Your task to perform on an android device: open app "VLC for Android" Image 0: 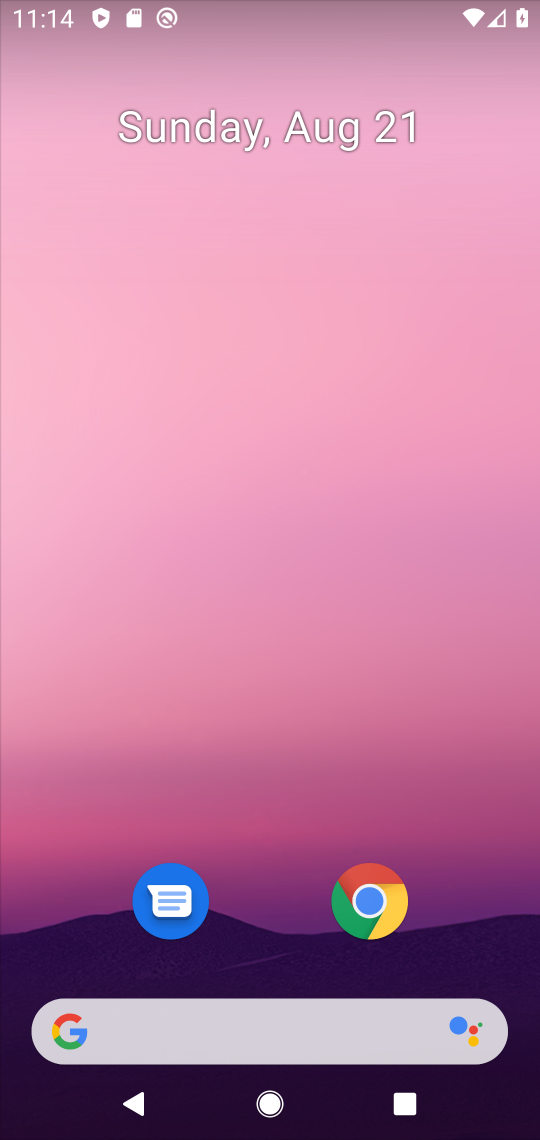
Step 0: drag from (257, 912) to (268, 182)
Your task to perform on an android device: open app "VLC for Android" Image 1: 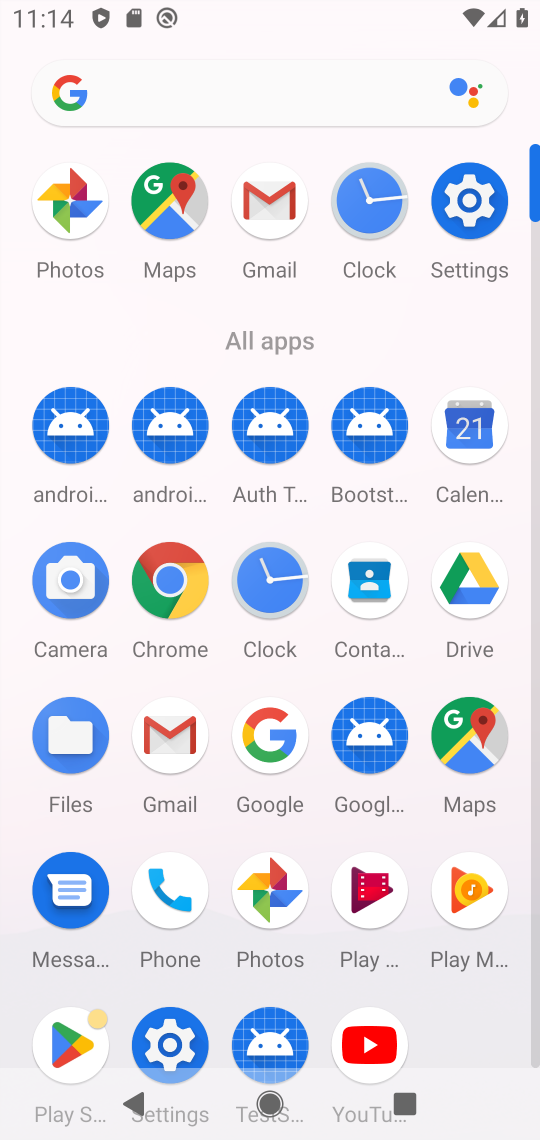
Step 1: click (73, 1032)
Your task to perform on an android device: open app "VLC for Android" Image 2: 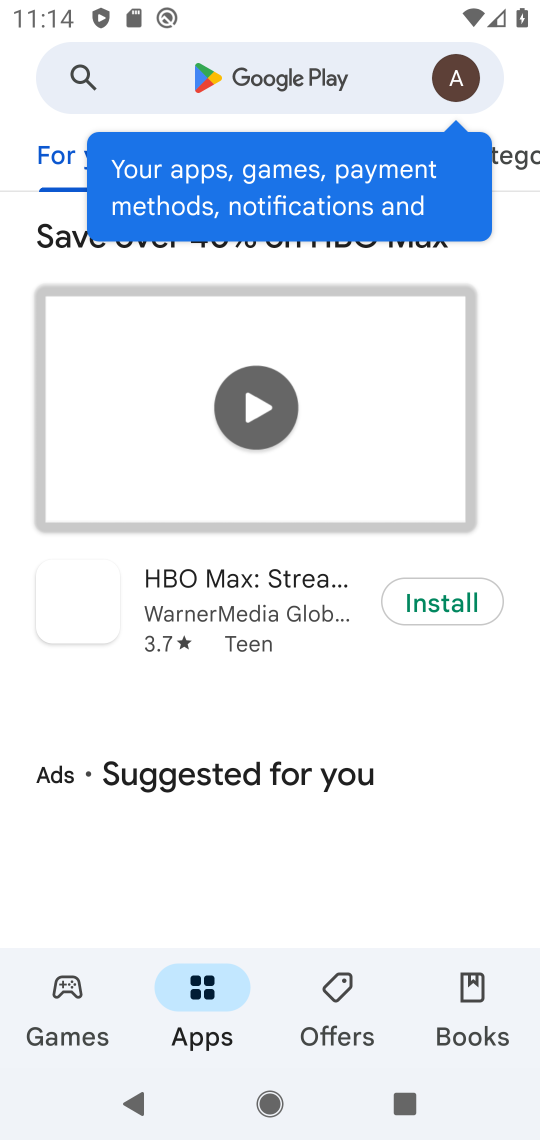
Step 2: click (312, 85)
Your task to perform on an android device: open app "VLC for Android" Image 3: 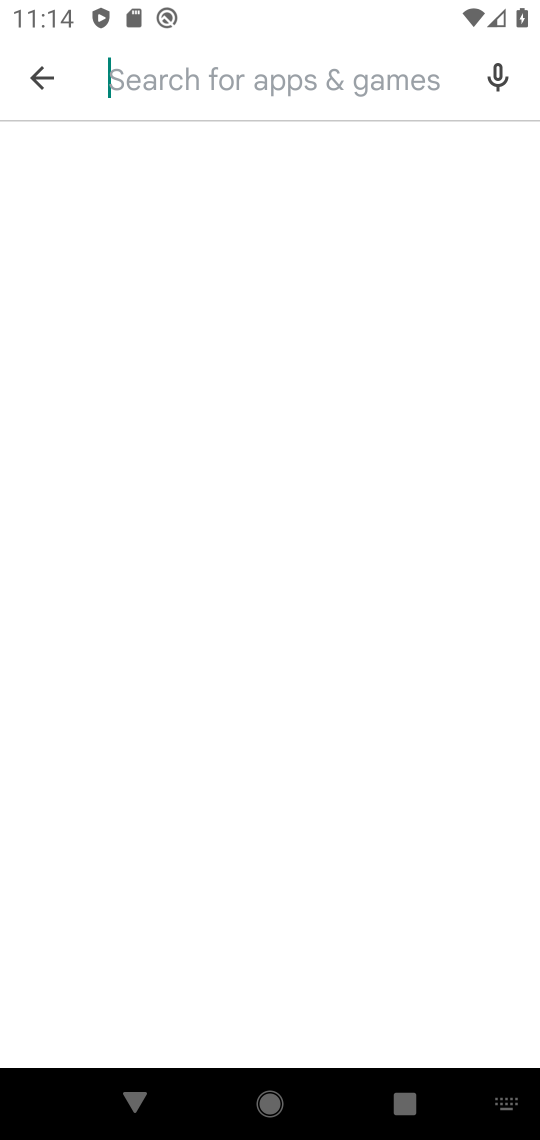
Step 3: type "vlc"
Your task to perform on an android device: open app "VLC for Android" Image 4: 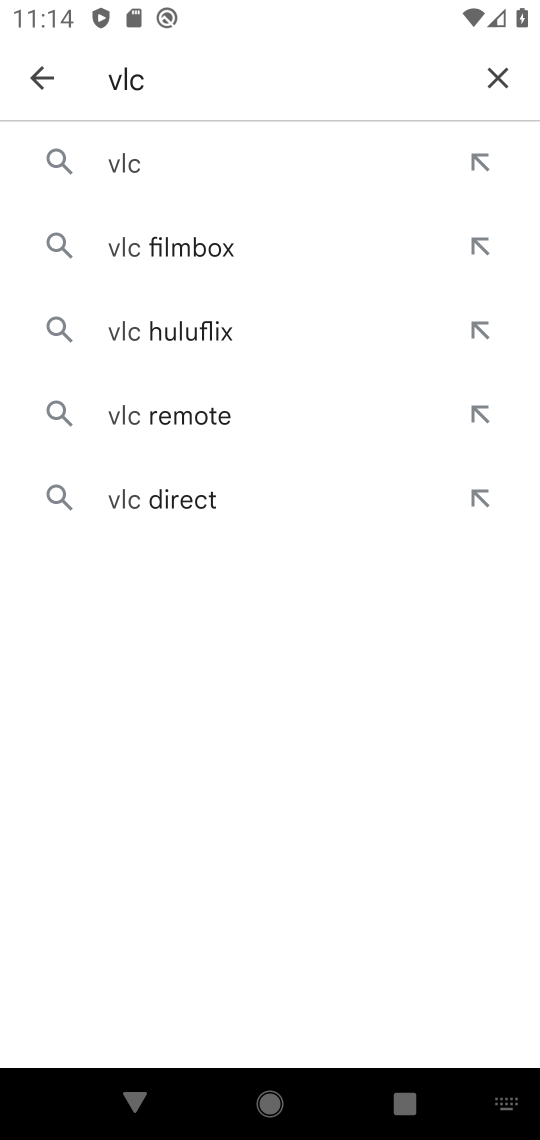
Step 4: click (207, 171)
Your task to perform on an android device: open app "VLC for Android" Image 5: 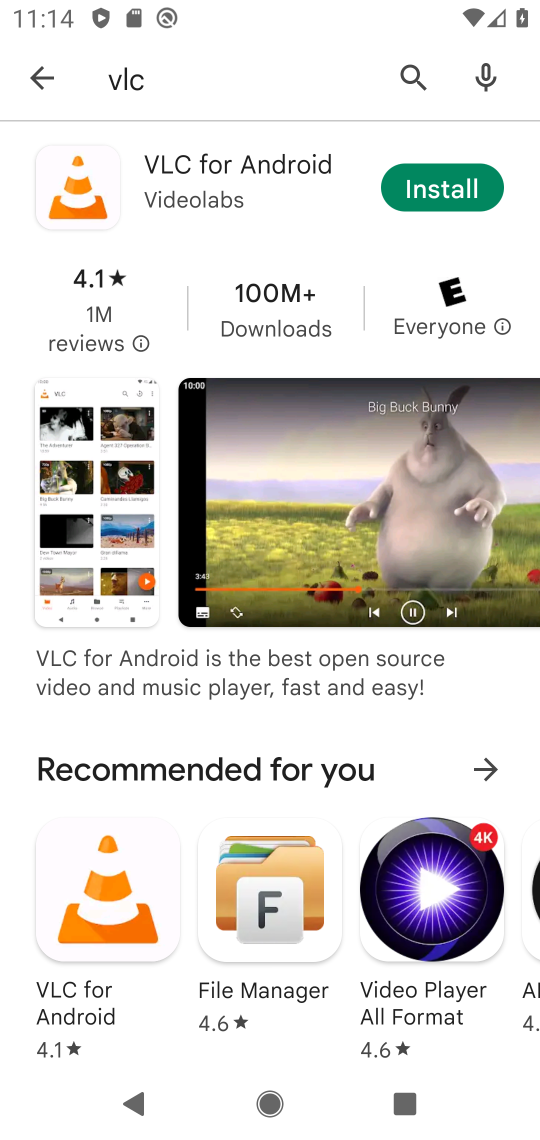
Step 5: click (422, 183)
Your task to perform on an android device: open app "VLC for Android" Image 6: 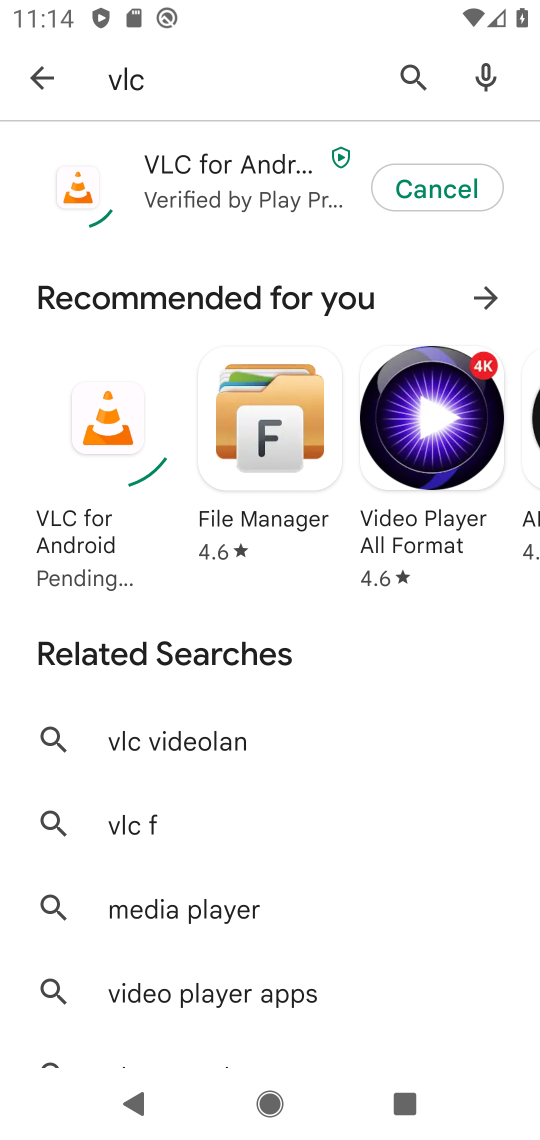
Step 6: task complete